Your task to perform on an android device: Go to settings Image 0: 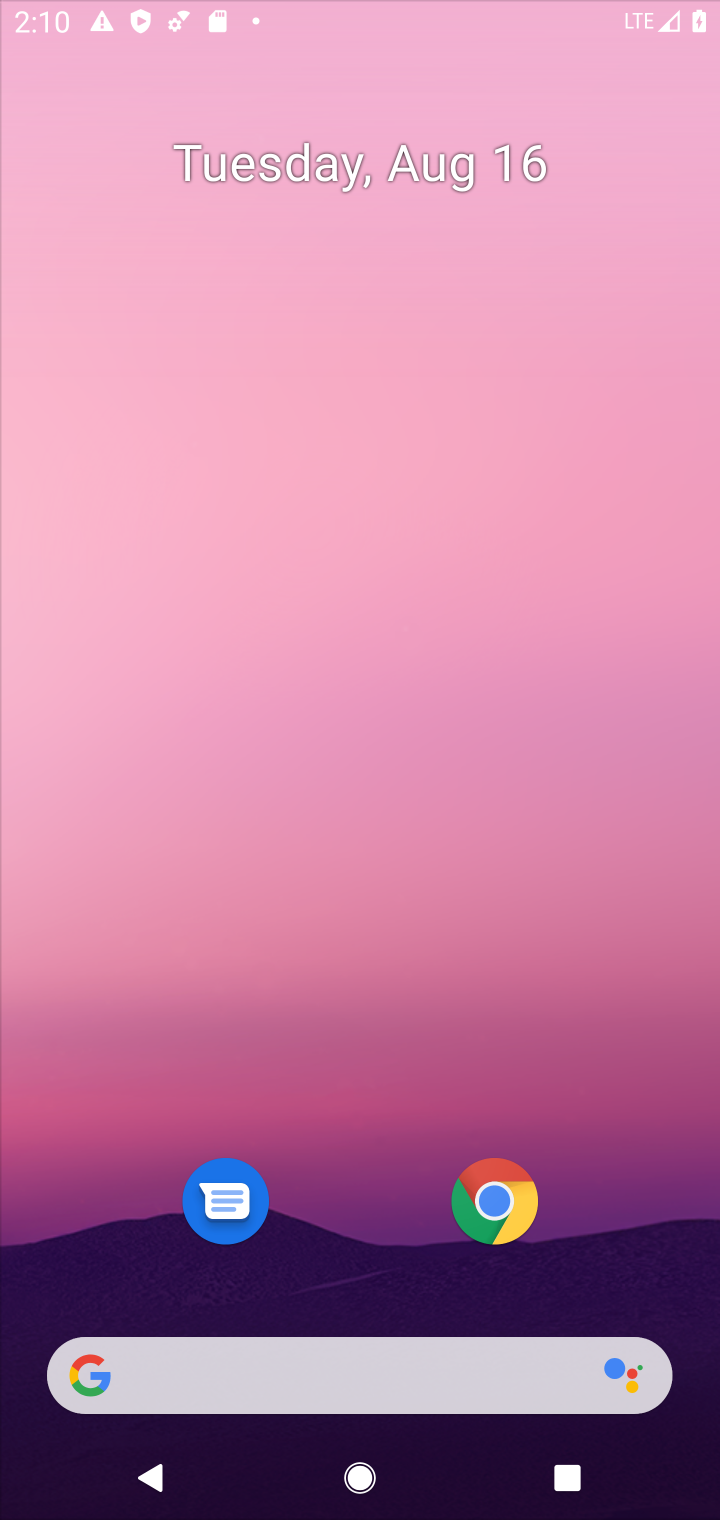
Step 0: press home button
Your task to perform on an android device: Go to settings Image 1: 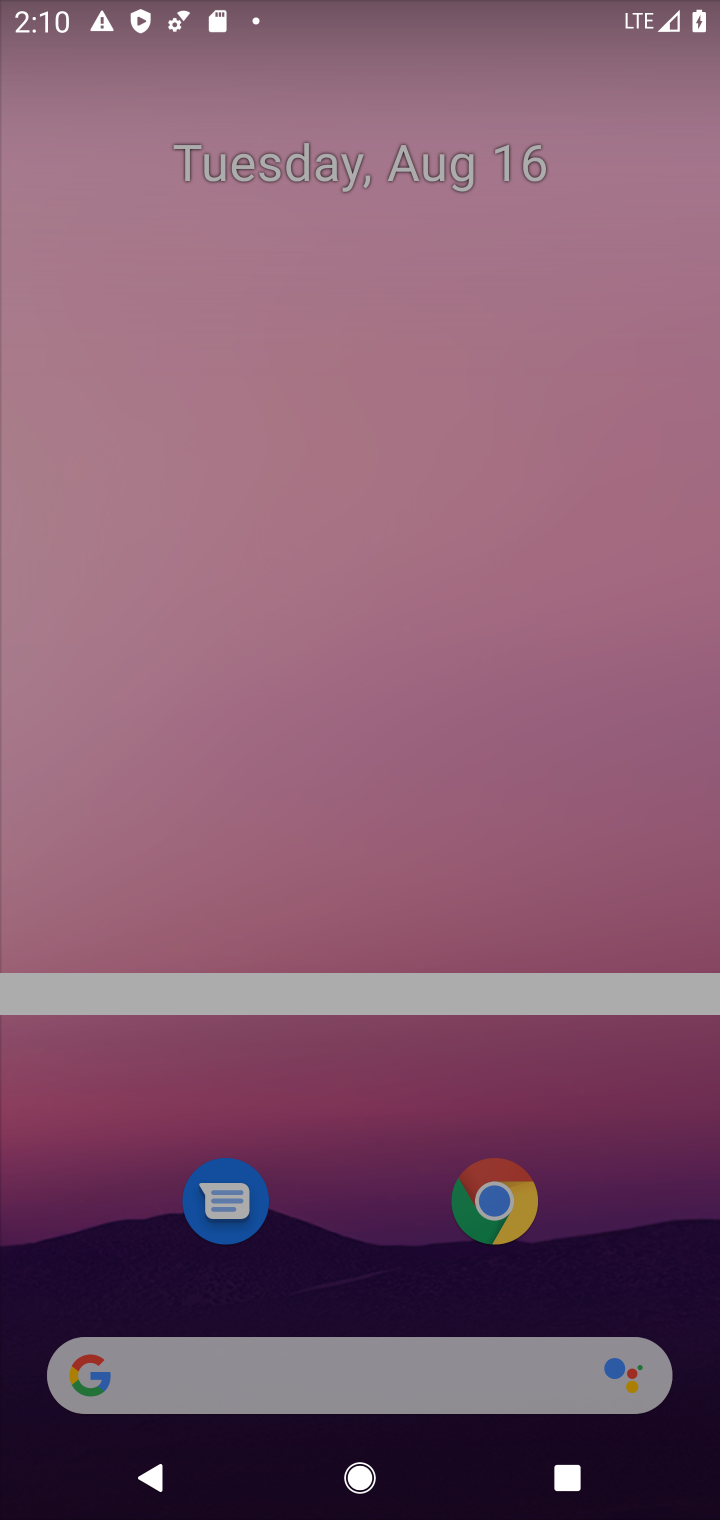
Step 1: drag from (454, 220) to (466, 114)
Your task to perform on an android device: Go to settings Image 2: 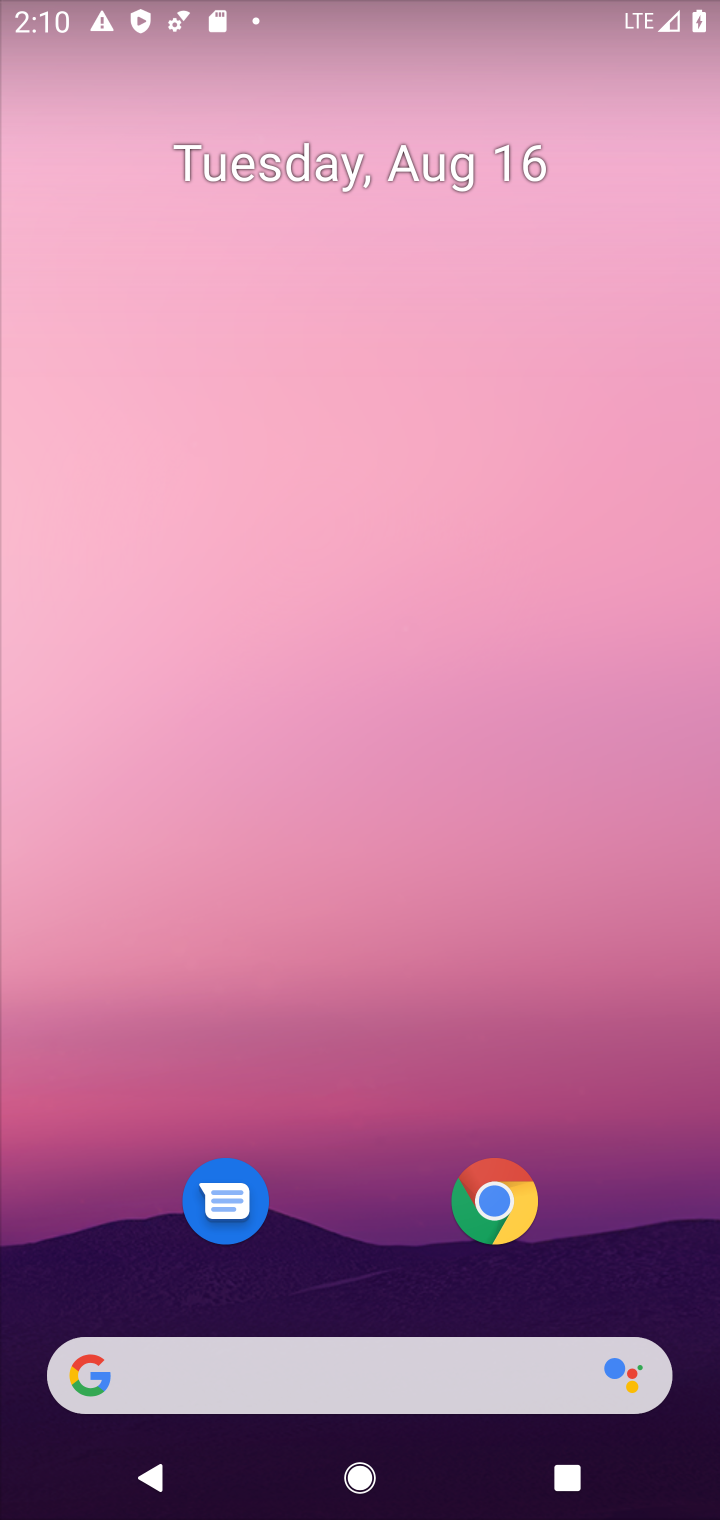
Step 2: drag from (371, 634) to (371, 159)
Your task to perform on an android device: Go to settings Image 3: 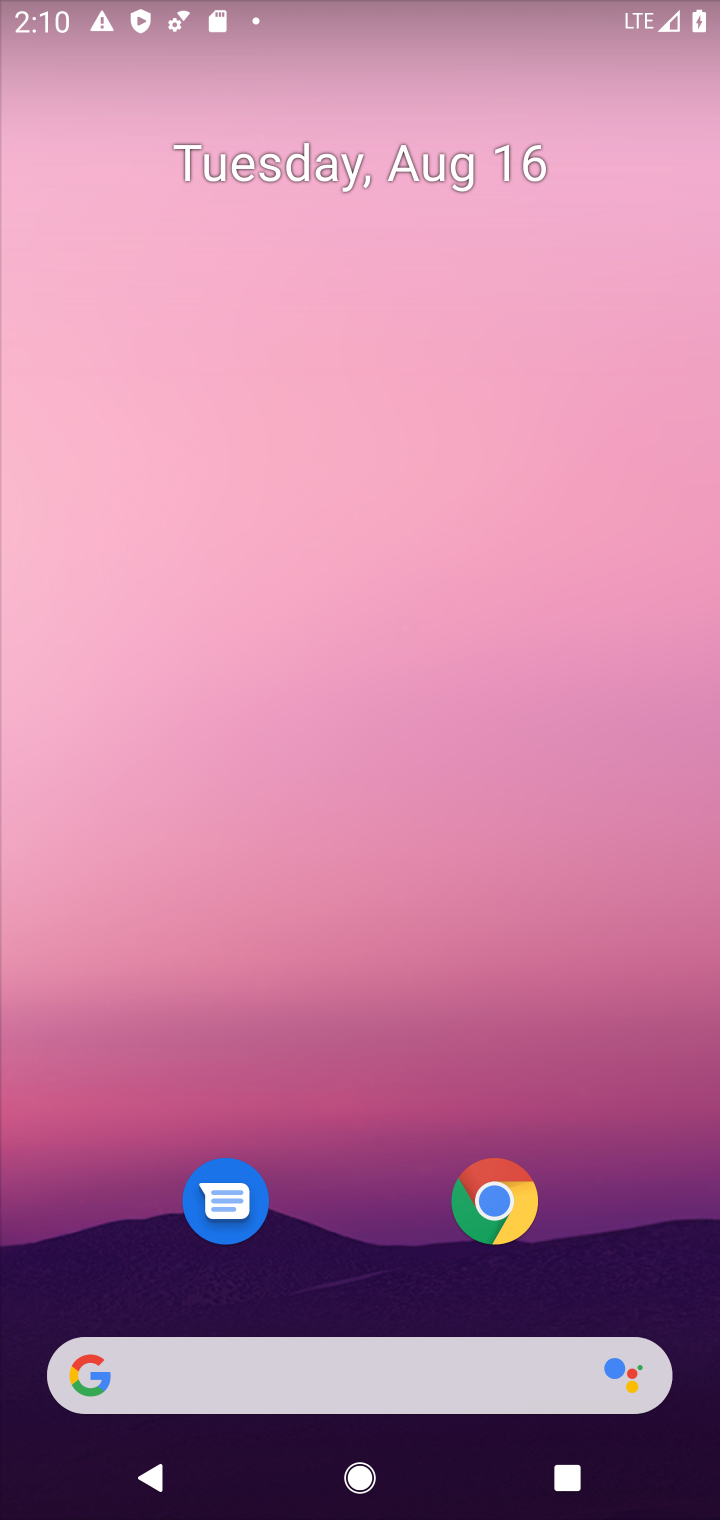
Step 3: drag from (350, 1042) to (435, 1)
Your task to perform on an android device: Go to settings Image 4: 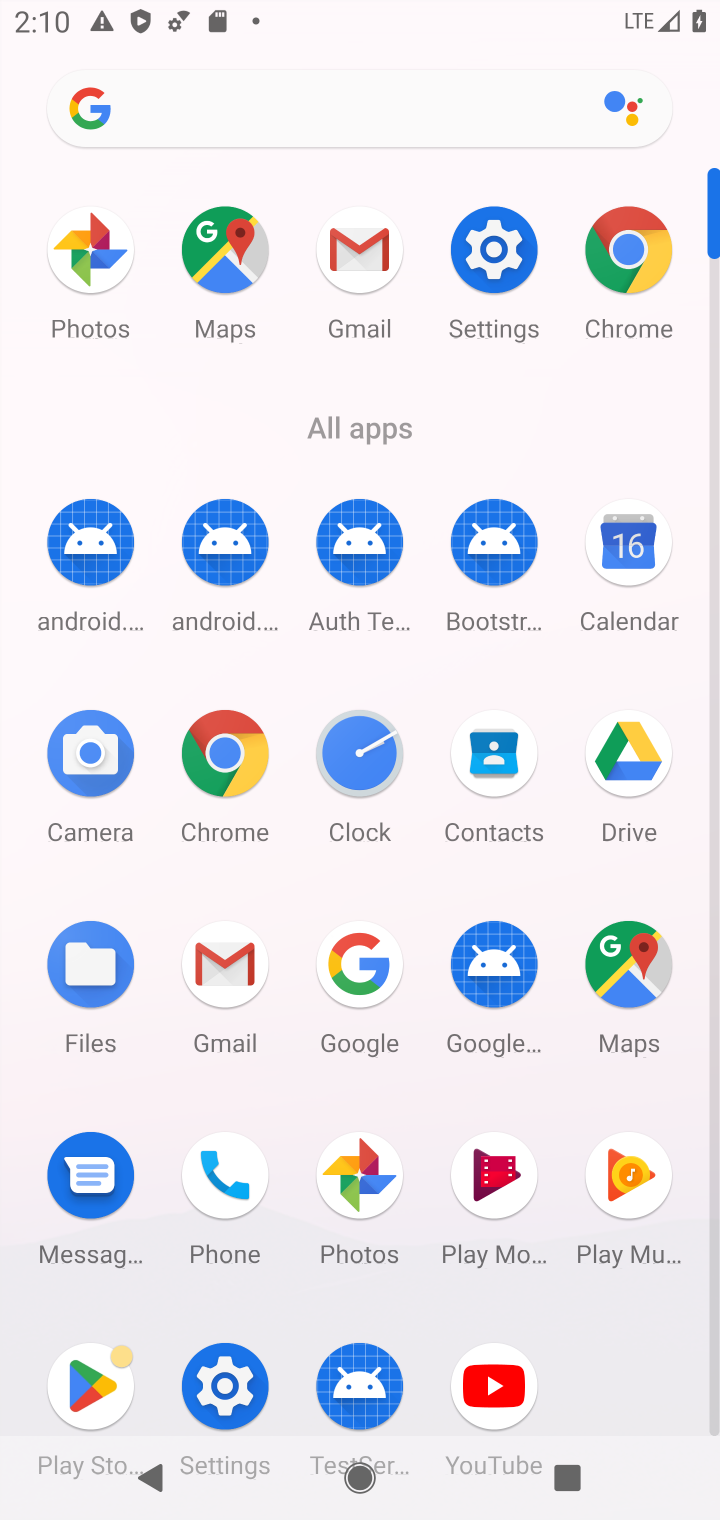
Step 4: click (491, 255)
Your task to perform on an android device: Go to settings Image 5: 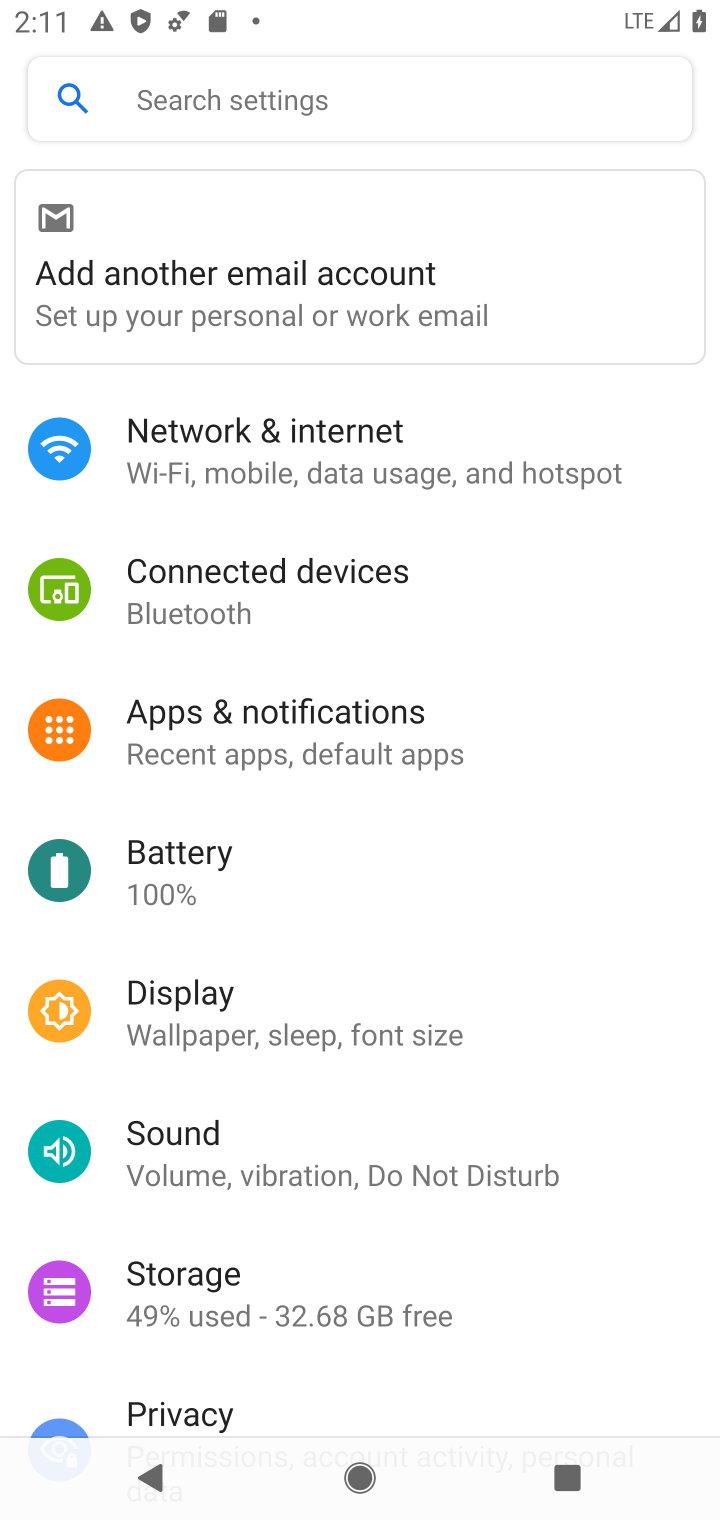
Step 5: task complete